Your task to perform on an android device: delete the emails in spam in the gmail app Image 0: 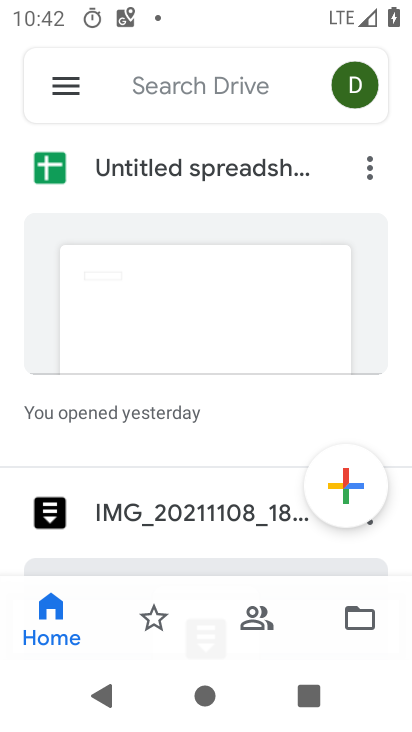
Step 0: press home button
Your task to perform on an android device: delete the emails in spam in the gmail app Image 1: 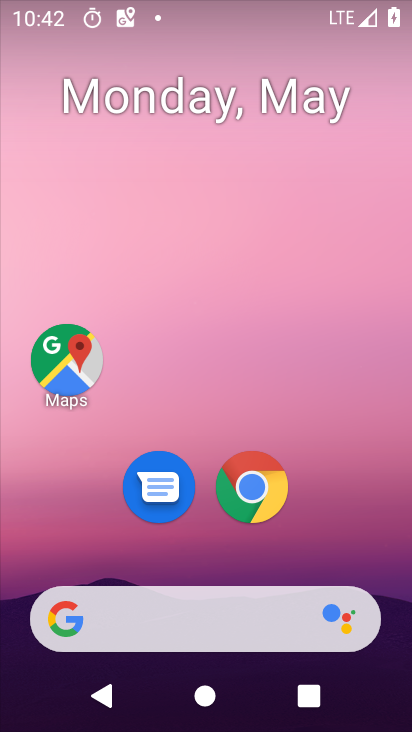
Step 1: drag from (318, 548) to (332, 147)
Your task to perform on an android device: delete the emails in spam in the gmail app Image 2: 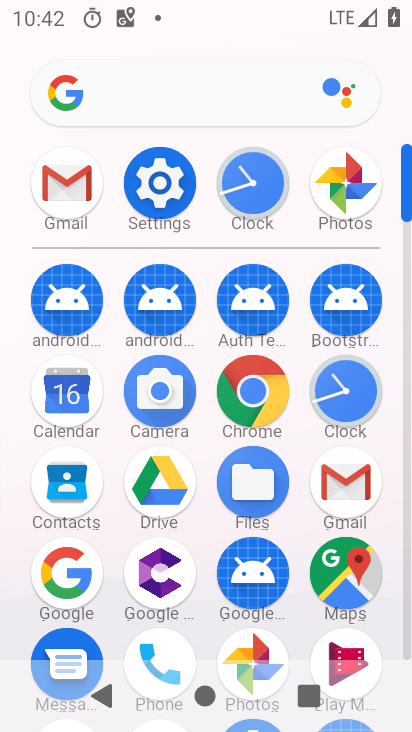
Step 2: click (334, 474)
Your task to perform on an android device: delete the emails in spam in the gmail app Image 3: 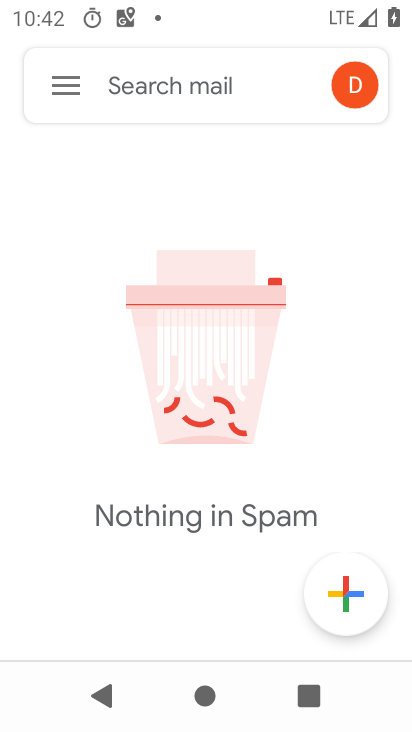
Step 3: click (72, 83)
Your task to perform on an android device: delete the emails in spam in the gmail app Image 4: 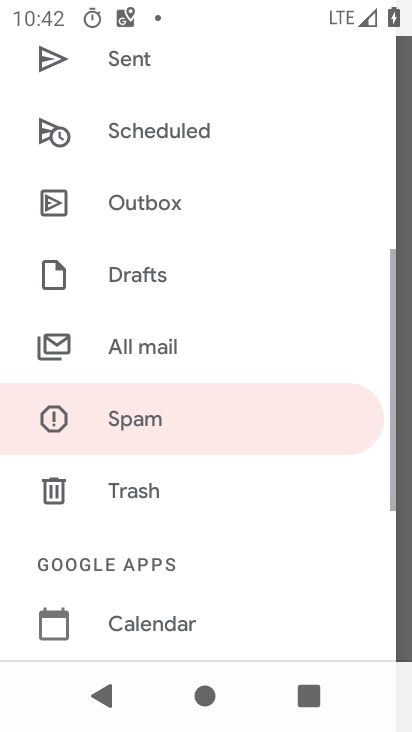
Step 4: click (130, 409)
Your task to perform on an android device: delete the emails in spam in the gmail app Image 5: 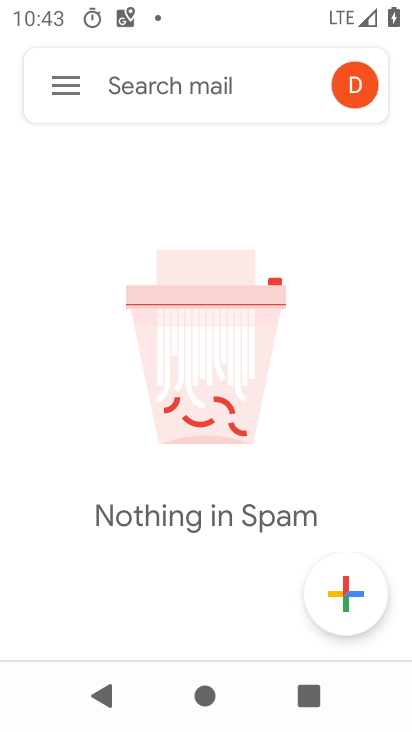
Step 5: task complete